Your task to perform on an android device: allow notifications from all sites in the chrome app Image 0: 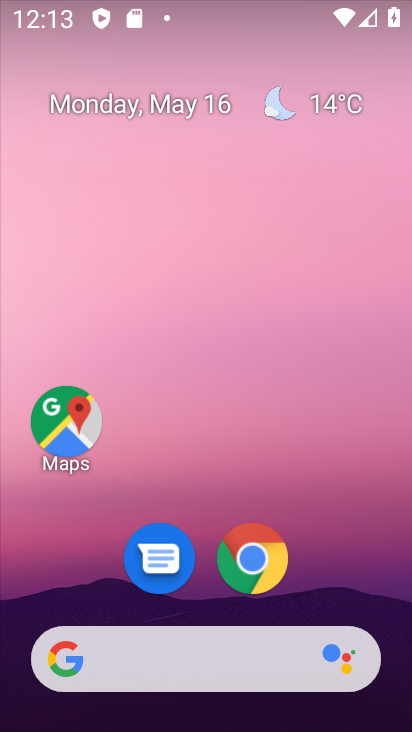
Step 0: drag from (372, 545) to (369, 188)
Your task to perform on an android device: allow notifications from all sites in the chrome app Image 1: 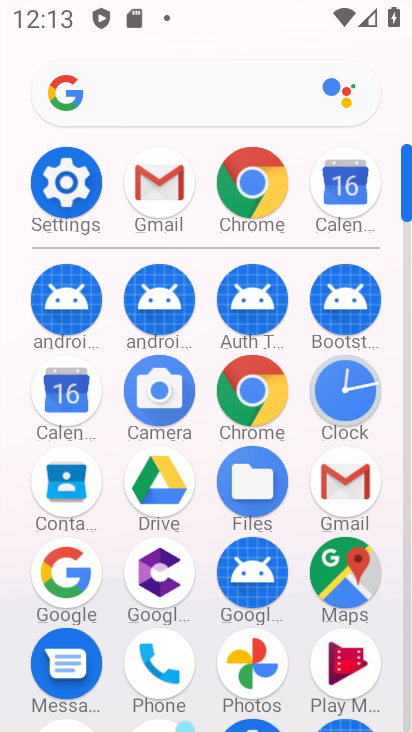
Step 1: click (256, 399)
Your task to perform on an android device: allow notifications from all sites in the chrome app Image 2: 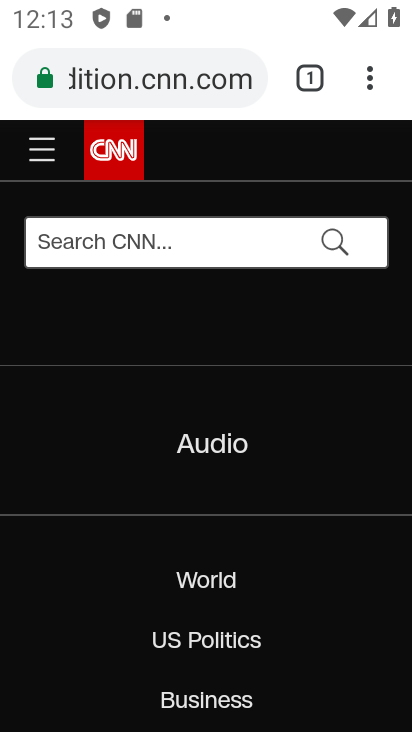
Step 2: click (373, 83)
Your task to perform on an android device: allow notifications from all sites in the chrome app Image 3: 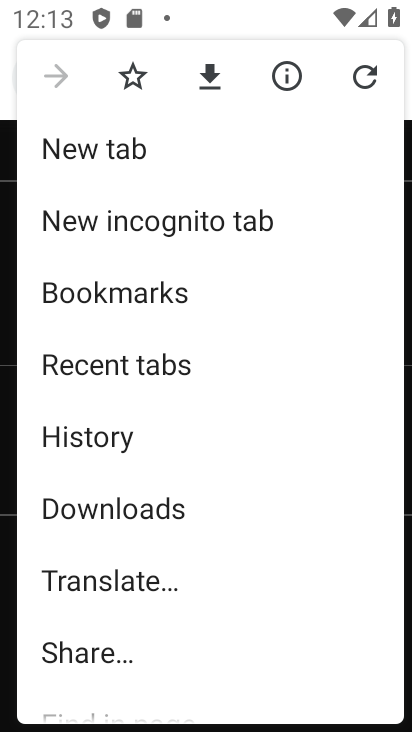
Step 3: drag from (326, 522) to (316, 368)
Your task to perform on an android device: allow notifications from all sites in the chrome app Image 4: 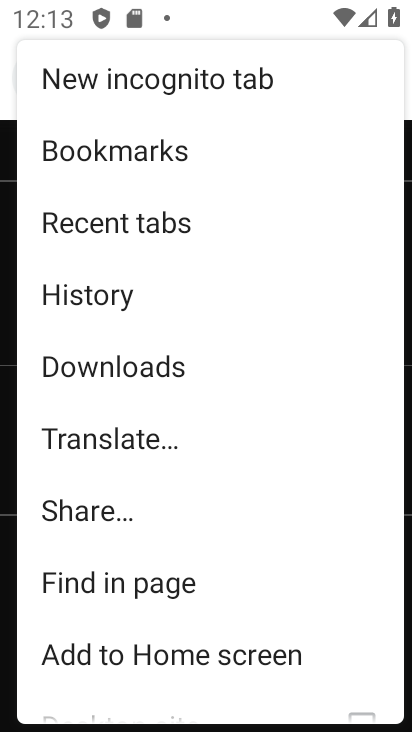
Step 4: drag from (303, 535) to (301, 378)
Your task to perform on an android device: allow notifications from all sites in the chrome app Image 5: 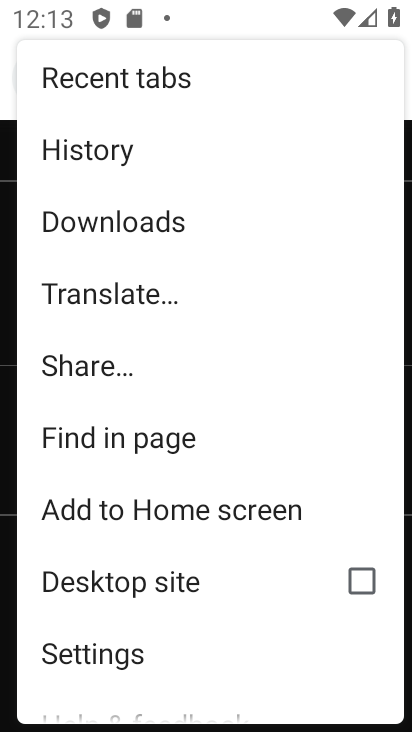
Step 5: drag from (273, 588) to (280, 451)
Your task to perform on an android device: allow notifications from all sites in the chrome app Image 6: 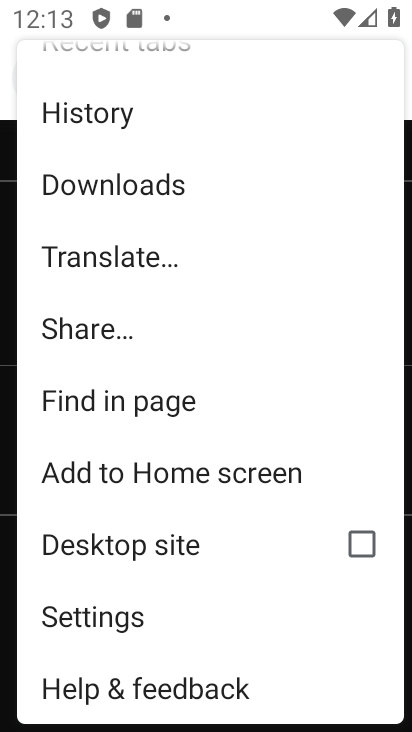
Step 6: click (128, 616)
Your task to perform on an android device: allow notifications from all sites in the chrome app Image 7: 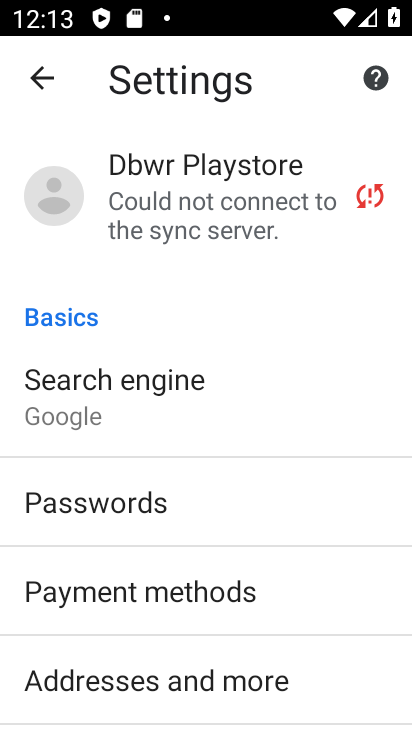
Step 7: drag from (305, 612) to (294, 488)
Your task to perform on an android device: allow notifications from all sites in the chrome app Image 8: 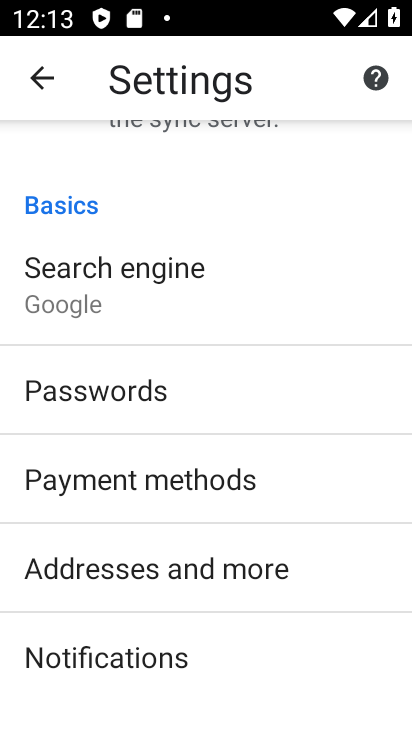
Step 8: drag from (300, 673) to (312, 553)
Your task to perform on an android device: allow notifications from all sites in the chrome app Image 9: 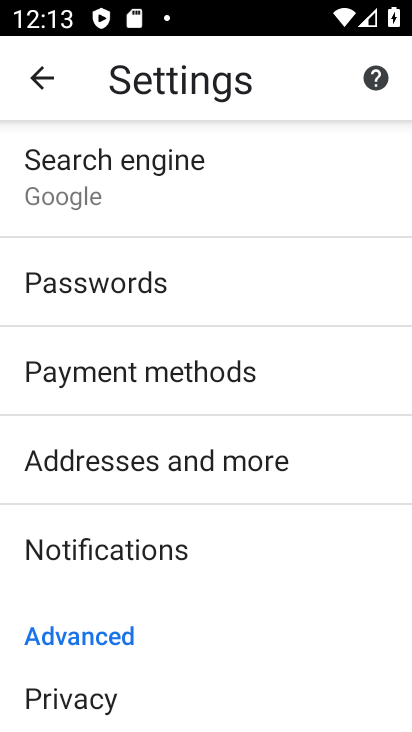
Step 9: drag from (302, 648) to (302, 554)
Your task to perform on an android device: allow notifications from all sites in the chrome app Image 10: 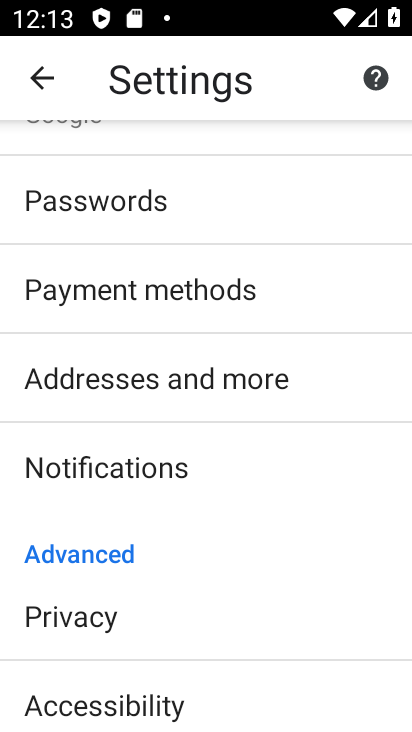
Step 10: drag from (293, 670) to (296, 549)
Your task to perform on an android device: allow notifications from all sites in the chrome app Image 11: 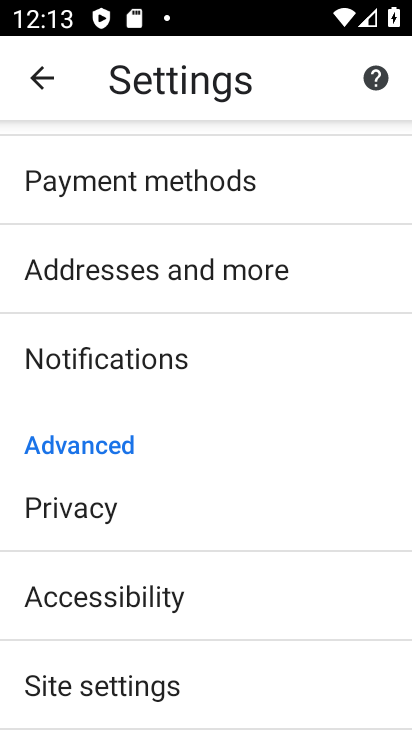
Step 11: drag from (279, 673) to (290, 408)
Your task to perform on an android device: allow notifications from all sites in the chrome app Image 12: 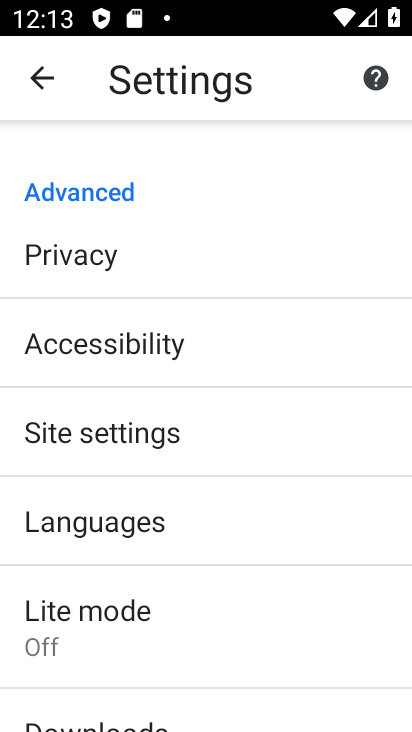
Step 12: drag from (289, 639) to (284, 412)
Your task to perform on an android device: allow notifications from all sites in the chrome app Image 13: 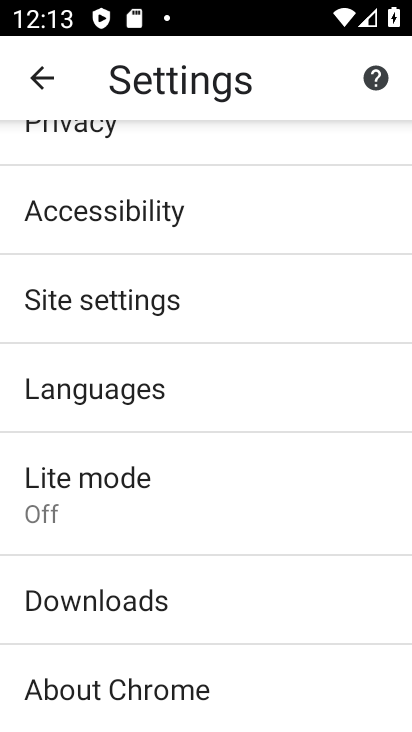
Step 13: click (177, 307)
Your task to perform on an android device: allow notifications from all sites in the chrome app Image 14: 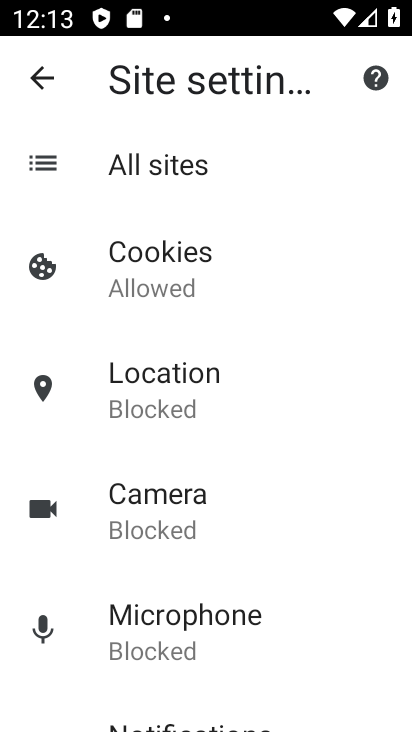
Step 14: drag from (313, 640) to (312, 506)
Your task to perform on an android device: allow notifications from all sites in the chrome app Image 15: 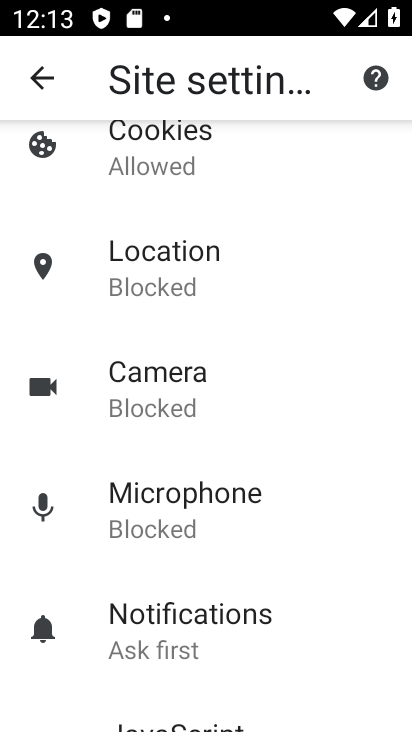
Step 15: drag from (306, 645) to (305, 443)
Your task to perform on an android device: allow notifications from all sites in the chrome app Image 16: 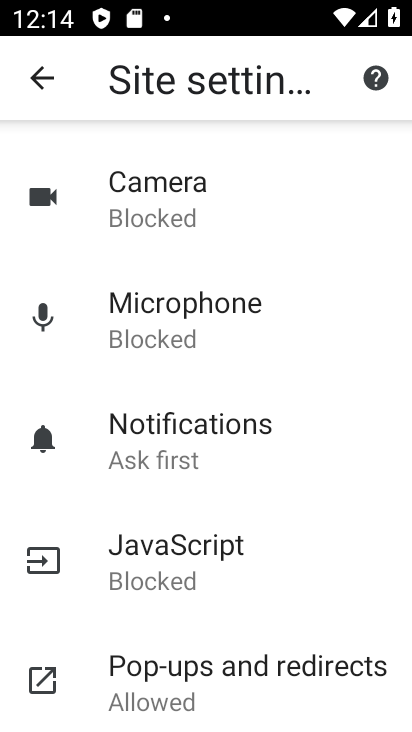
Step 16: drag from (330, 607) to (326, 484)
Your task to perform on an android device: allow notifications from all sites in the chrome app Image 17: 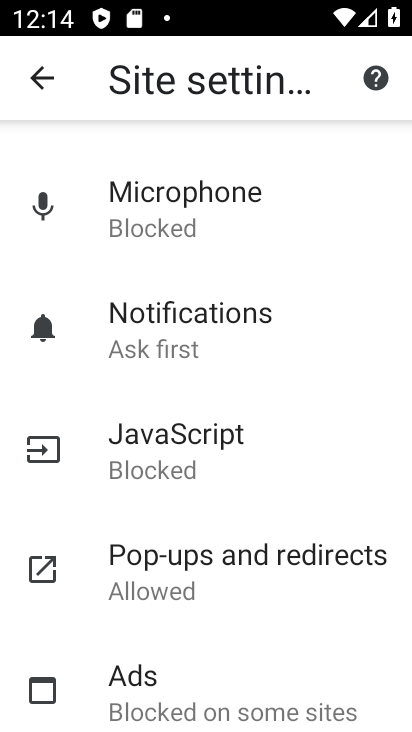
Step 17: click (202, 325)
Your task to perform on an android device: allow notifications from all sites in the chrome app Image 18: 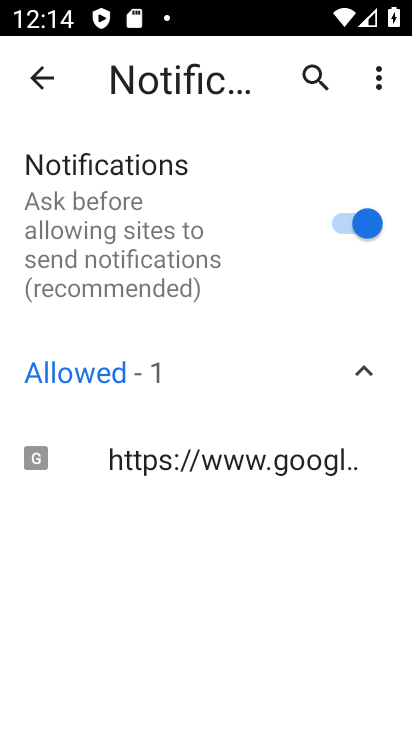
Step 18: task complete